Your task to perform on an android device: What is the recent news? Image 0: 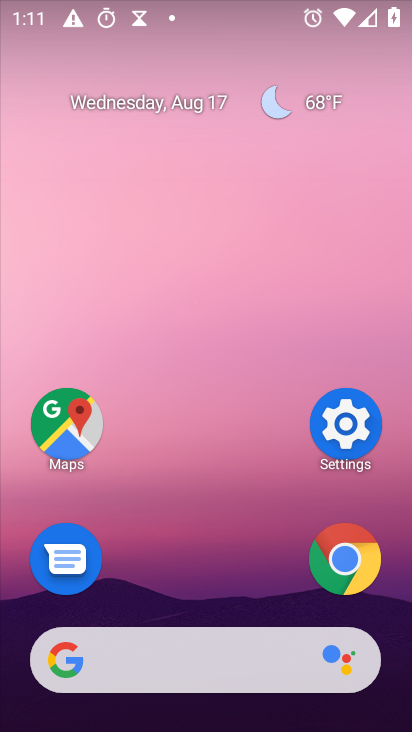
Step 0: click (150, 657)
Your task to perform on an android device: What is the recent news? Image 1: 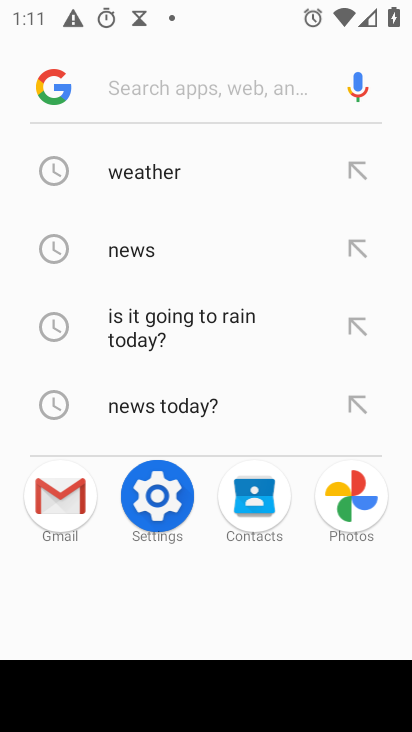
Step 1: click (126, 258)
Your task to perform on an android device: What is the recent news? Image 2: 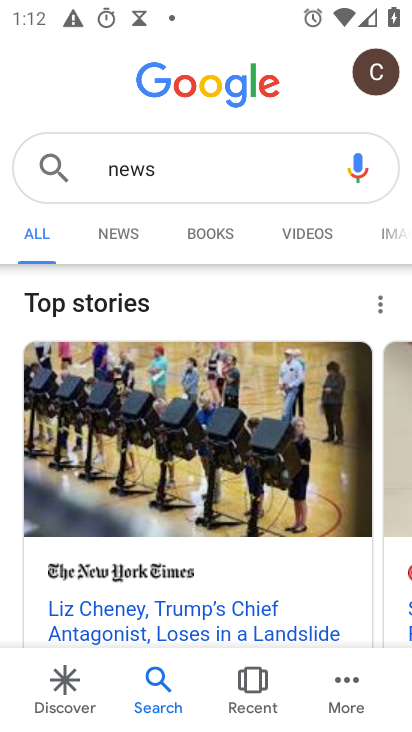
Step 2: click (121, 232)
Your task to perform on an android device: What is the recent news? Image 3: 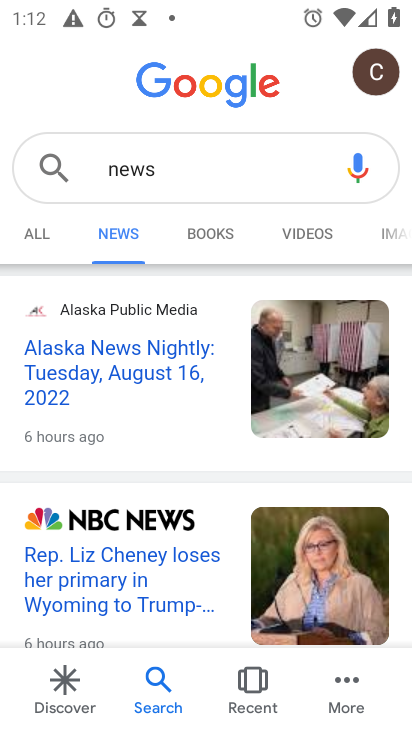
Step 3: task complete